Your task to perform on an android device: open app "Clock" Image 0: 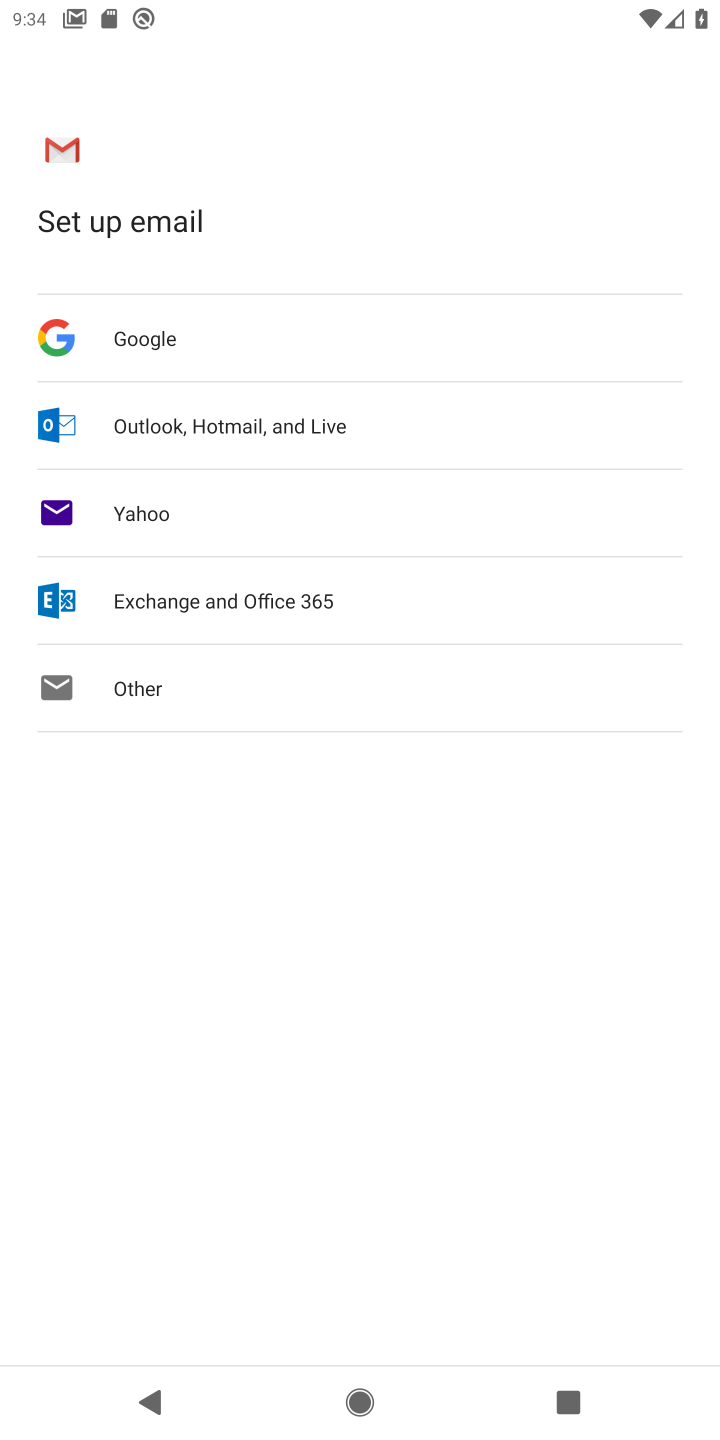
Step 0: press home button
Your task to perform on an android device: open app "Clock" Image 1: 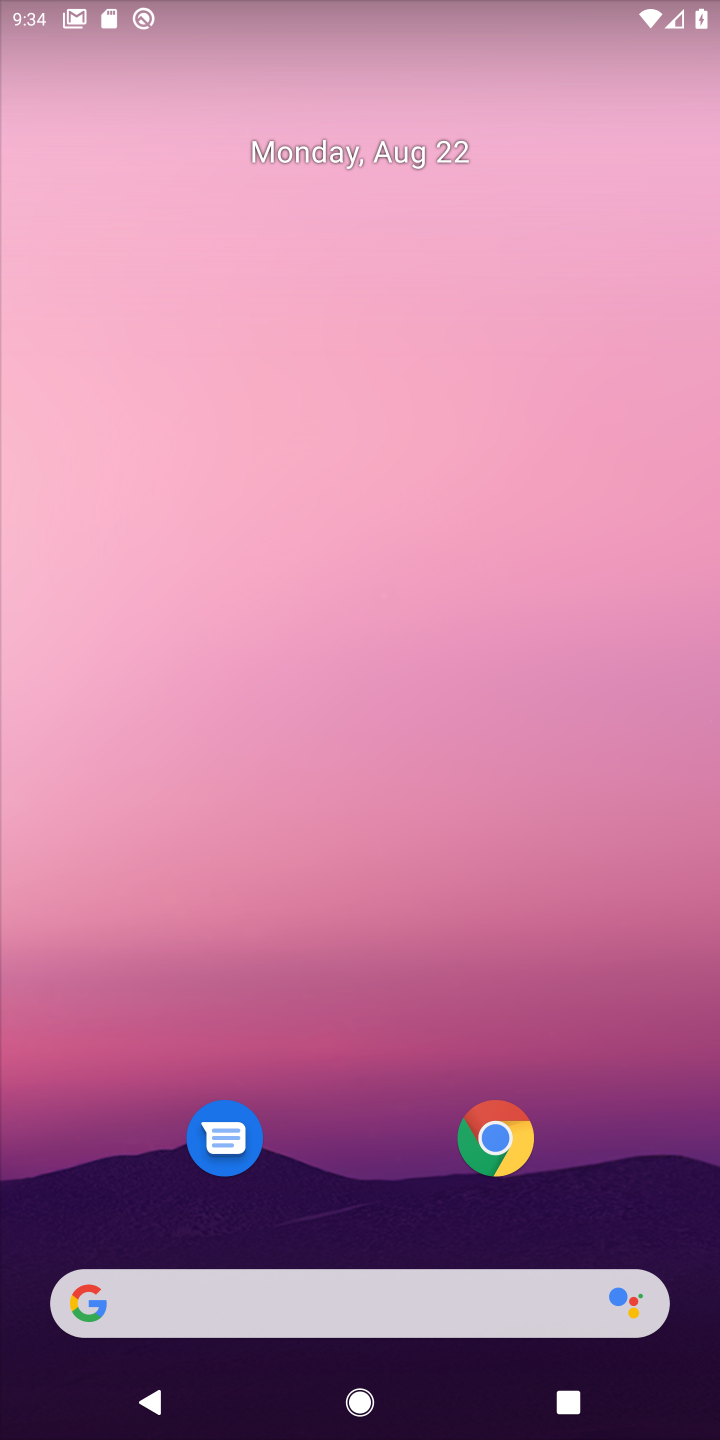
Step 1: drag from (294, 1056) to (217, 369)
Your task to perform on an android device: open app "Clock" Image 2: 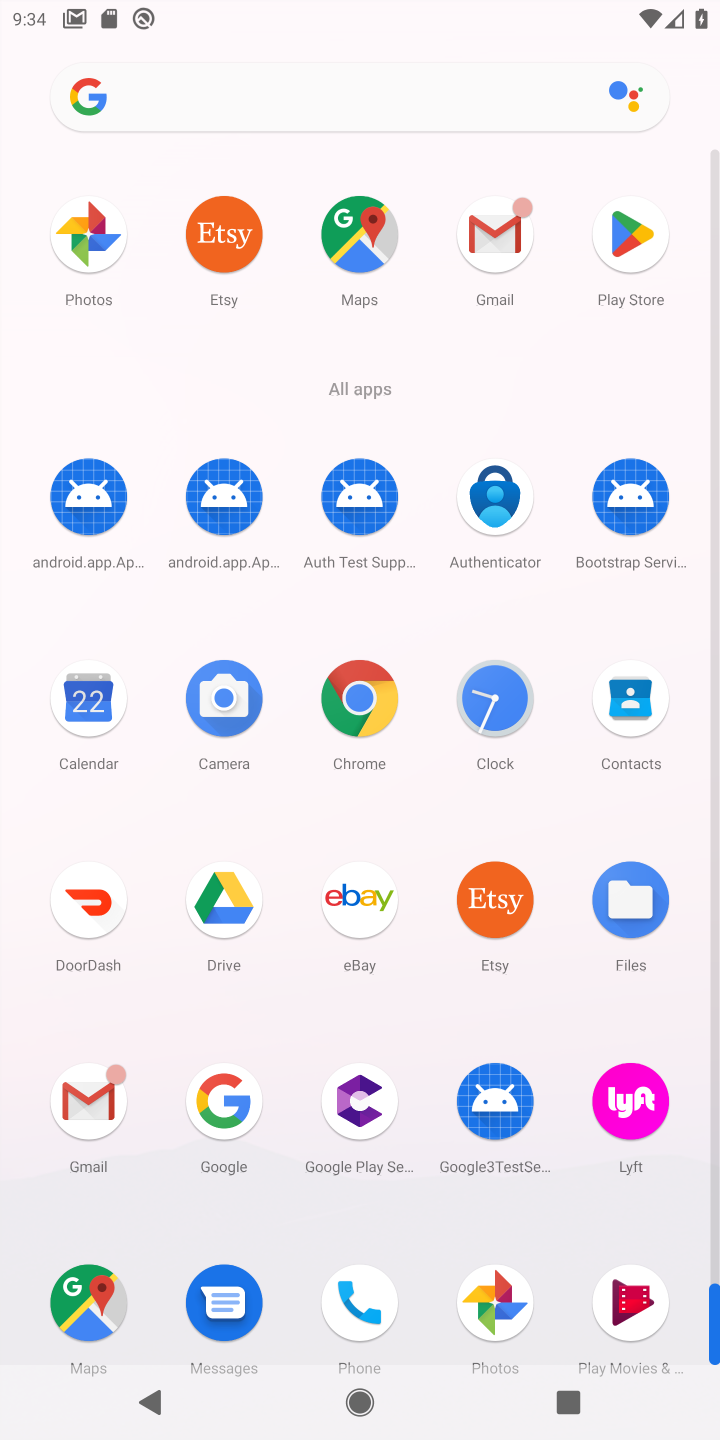
Step 2: click (495, 707)
Your task to perform on an android device: open app "Clock" Image 3: 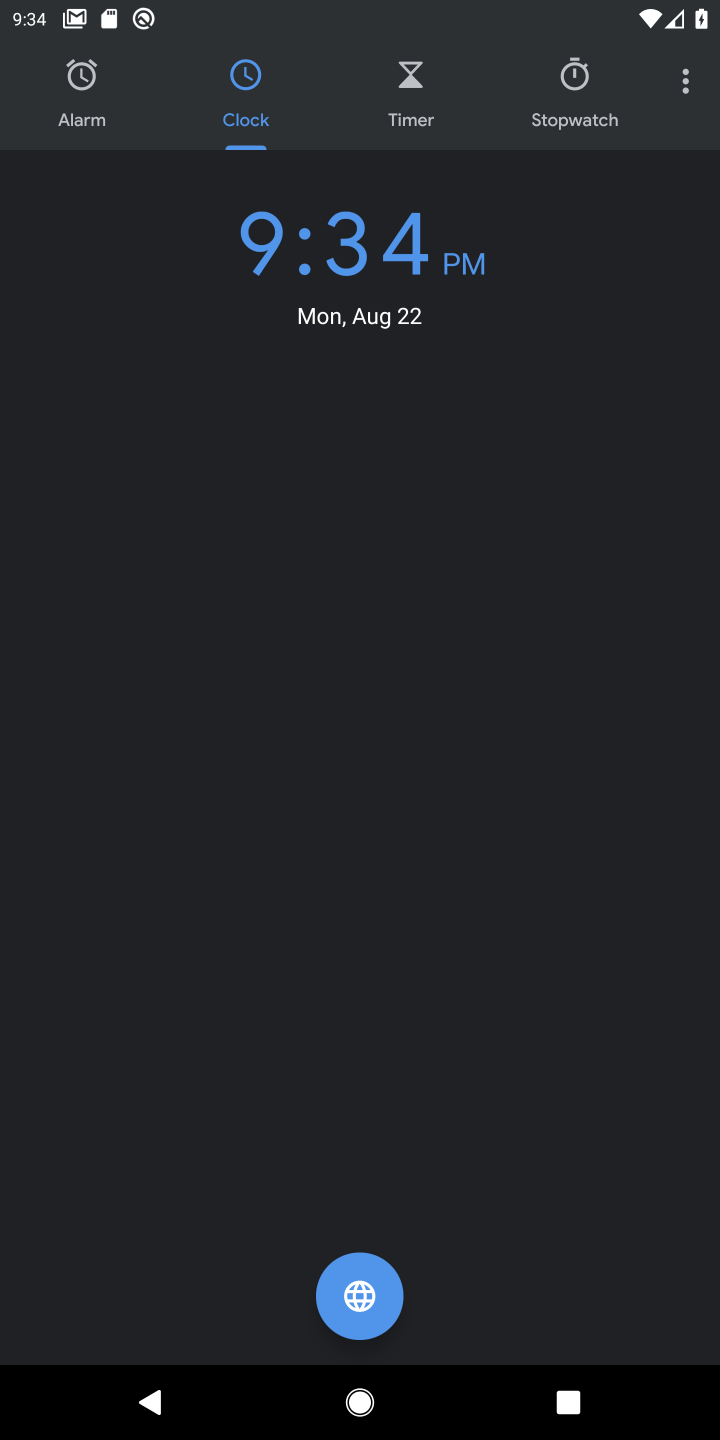
Step 3: task complete